Your task to perform on an android device: choose inbox layout in the gmail app Image 0: 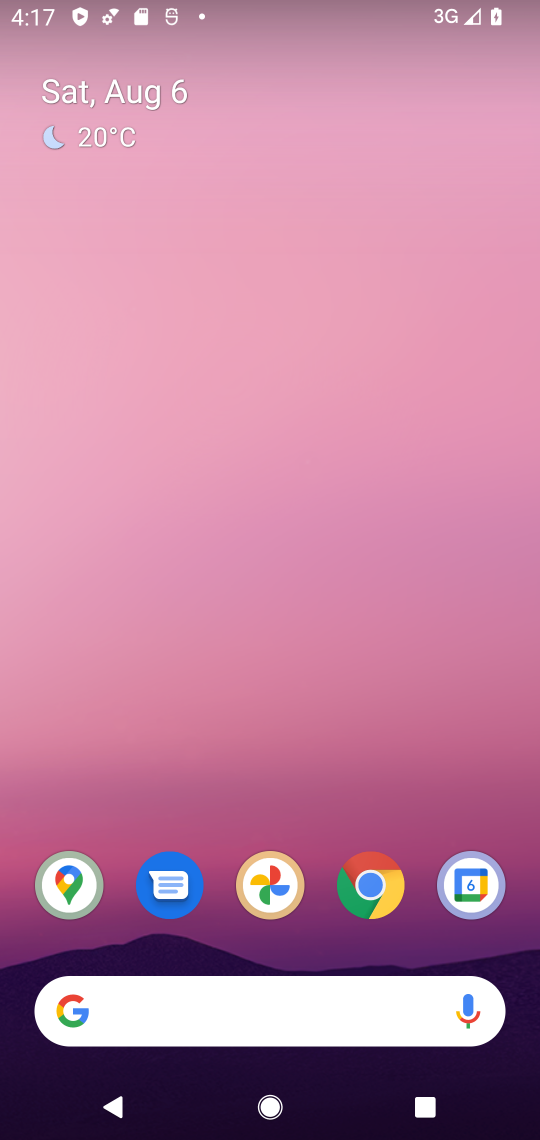
Step 0: drag from (406, 845) to (223, 85)
Your task to perform on an android device: choose inbox layout in the gmail app Image 1: 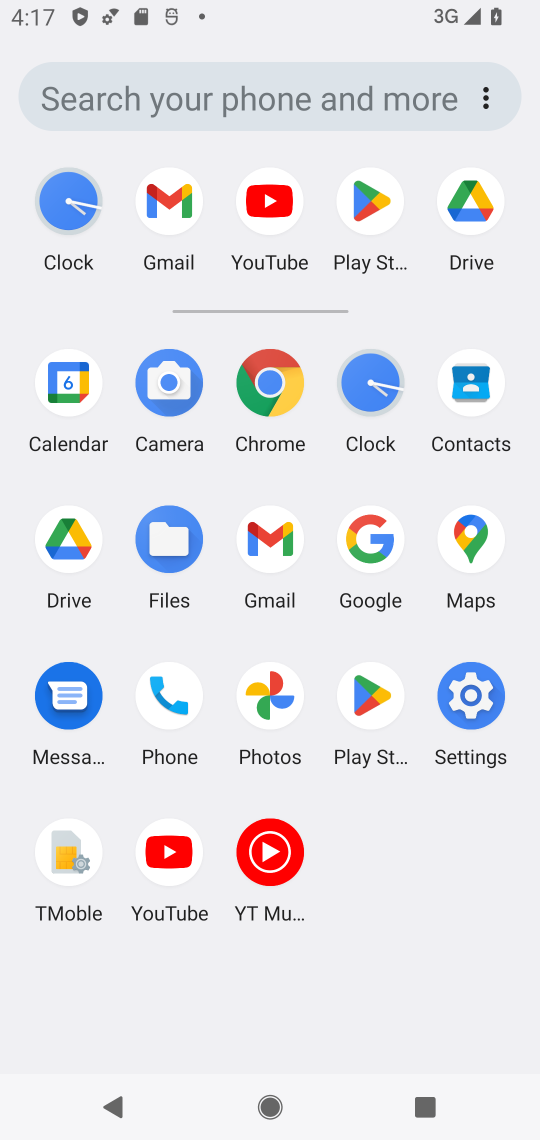
Step 1: click (257, 525)
Your task to perform on an android device: choose inbox layout in the gmail app Image 2: 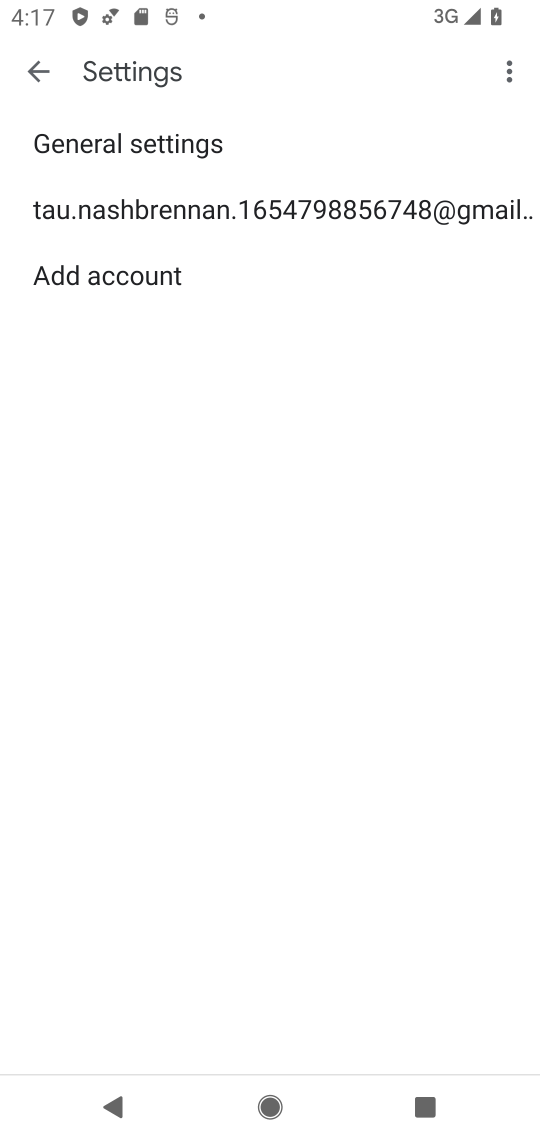
Step 2: task complete